Your task to perform on an android device: Open Youtube and go to the subscriptions tab Image 0: 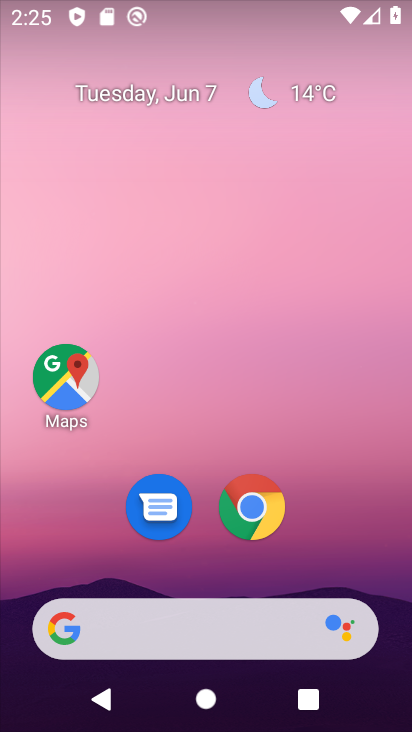
Step 0: drag from (326, 522) to (311, 152)
Your task to perform on an android device: Open Youtube and go to the subscriptions tab Image 1: 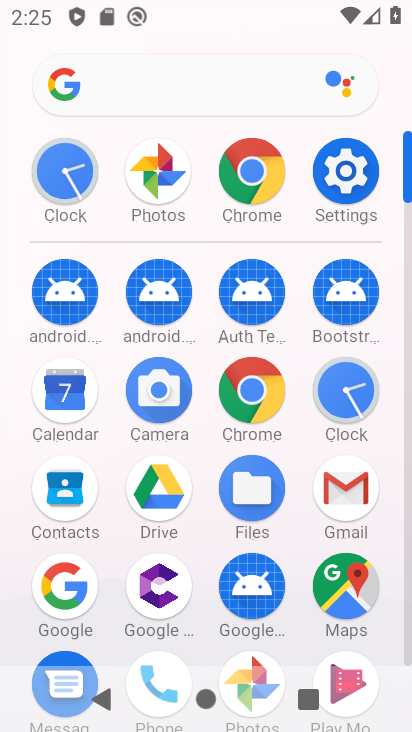
Step 1: drag from (293, 562) to (322, 193)
Your task to perform on an android device: Open Youtube and go to the subscriptions tab Image 2: 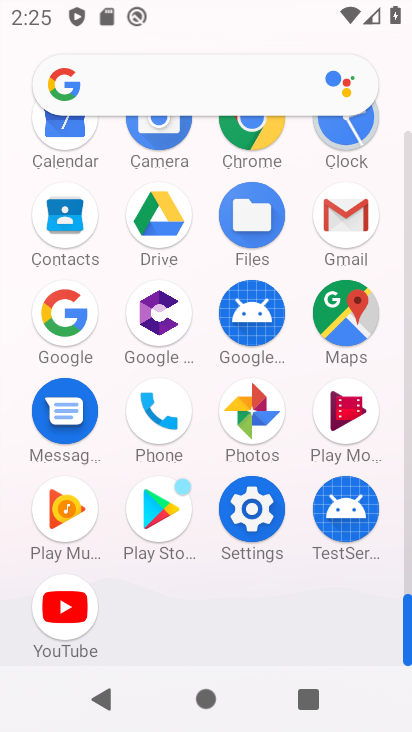
Step 2: click (75, 620)
Your task to perform on an android device: Open Youtube and go to the subscriptions tab Image 3: 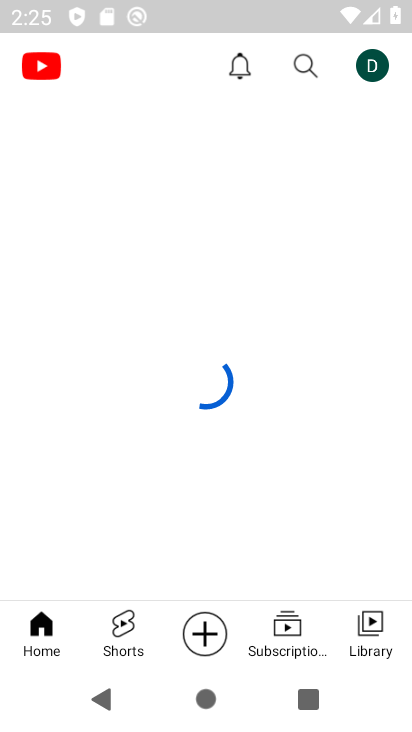
Step 3: click (290, 646)
Your task to perform on an android device: Open Youtube and go to the subscriptions tab Image 4: 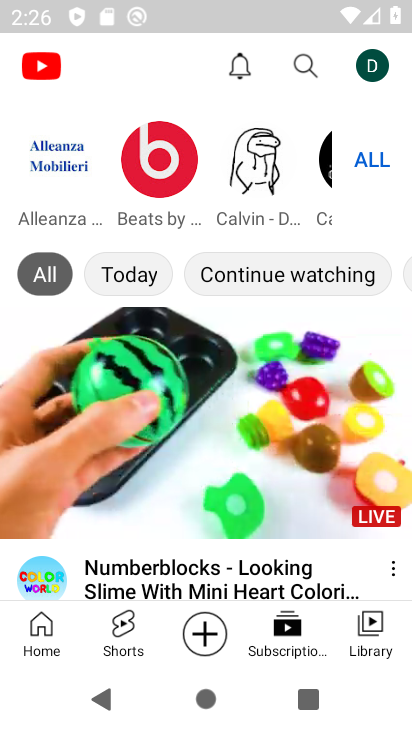
Step 4: task complete